Your task to perform on an android device: Go to Maps Image 0: 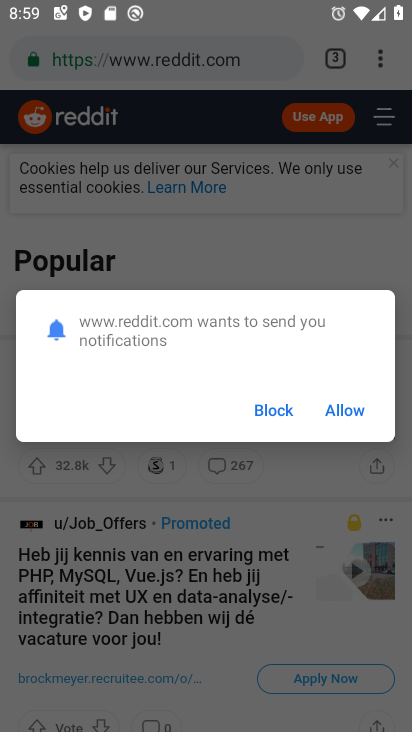
Step 0: press home button
Your task to perform on an android device: Go to Maps Image 1: 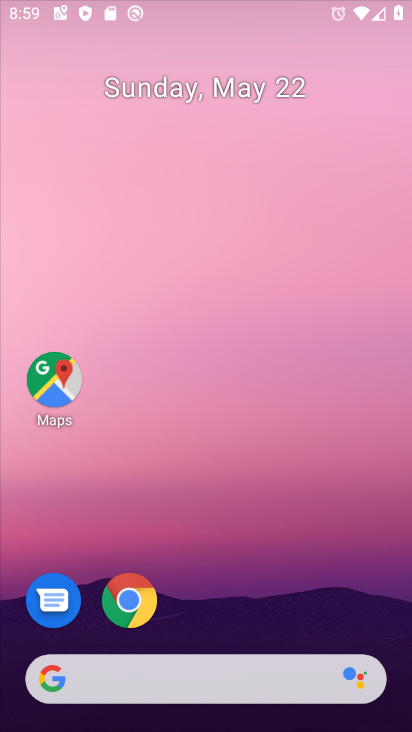
Step 1: drag from (227, 689) to (317, 82)
Your task to perform on an android device: Go to Maps Image 2: 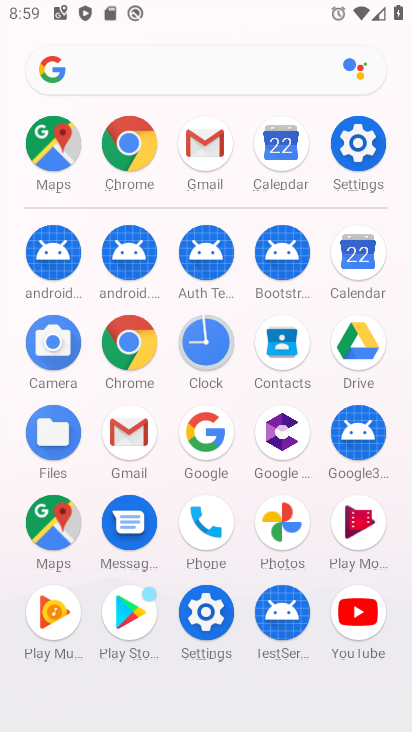
Step 2: drag from (211, 508) to (268, 208)
Your task to perform on an android device: Go to Maps Image 3: 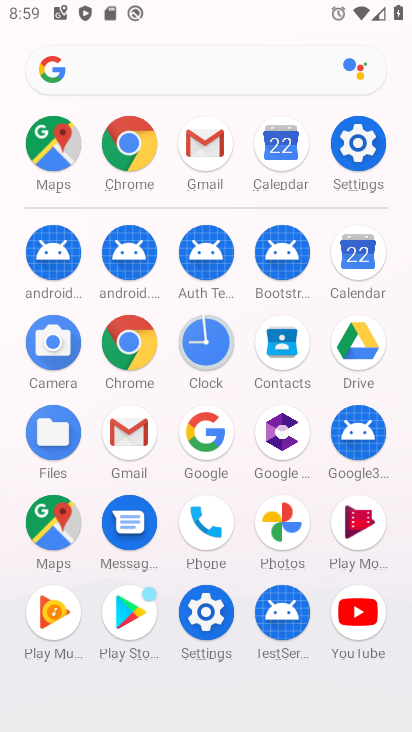
Step 3: click (59, 536)
Your task to perform on an android device: Go to Maps Image 4: 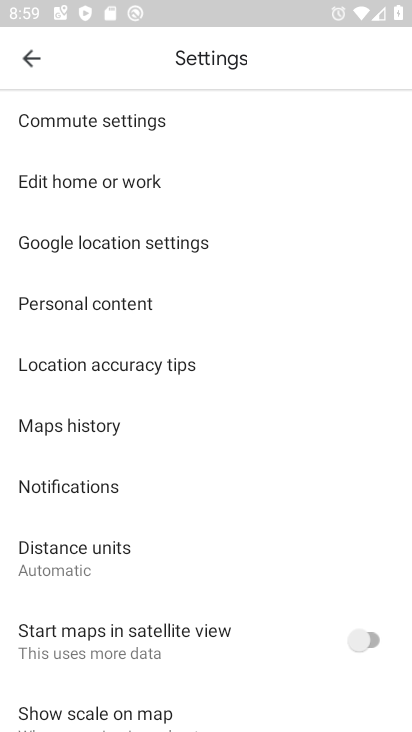
Step 4: press back button
Your task to perform on an android device: Go to Maps Image 5: 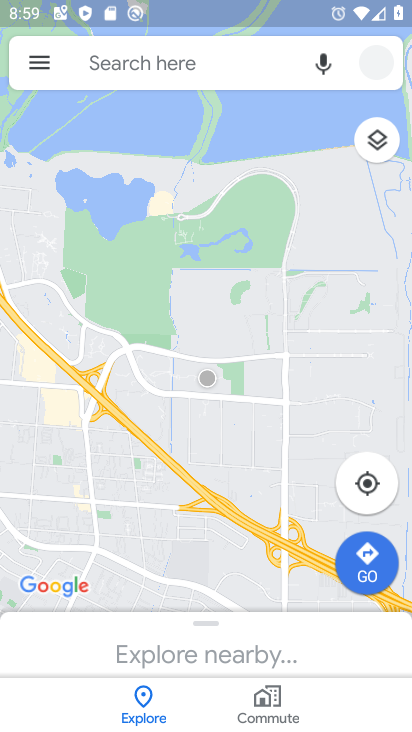
Step 5: press back button
Your task to perform on an android device: Go to Maps Image 6: 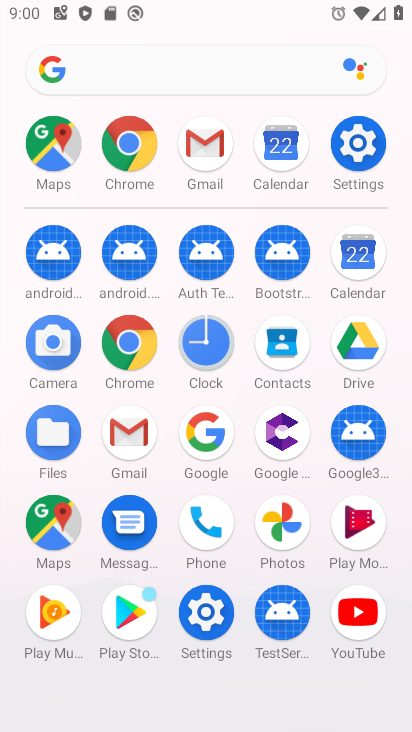
Step 6: click (48, 531)
Your task to perform on an android device: Go to Maps Image 7: 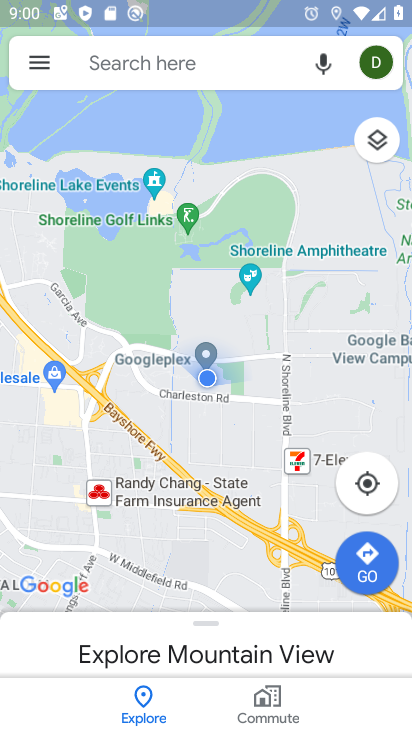
Step 7: task complete